Your task to perform on an android device: Go to Reddit.com Image 0: 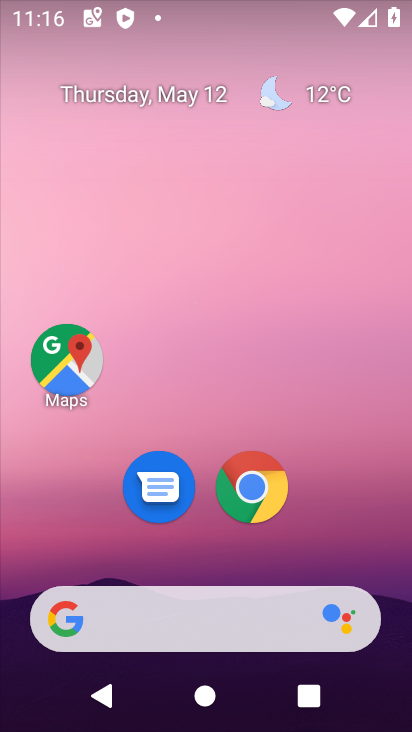
Step 0: click (261, 489)
Your task to perform on an android device: Go to Reddit.com Image 1: 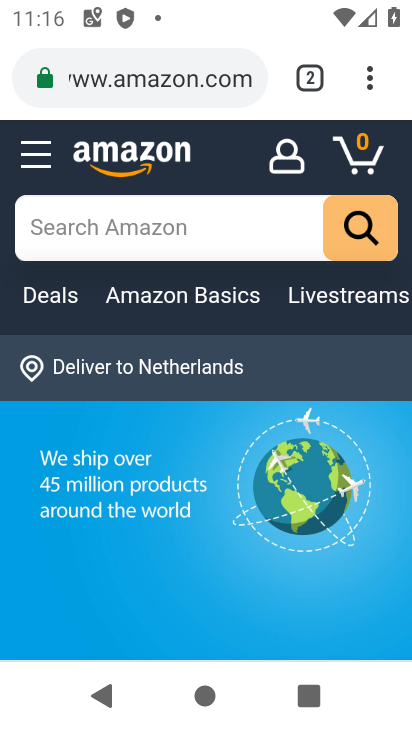
Step 1: click (130, 83)
Your task to perform on an android device: Go to Reddit.com Image 2: 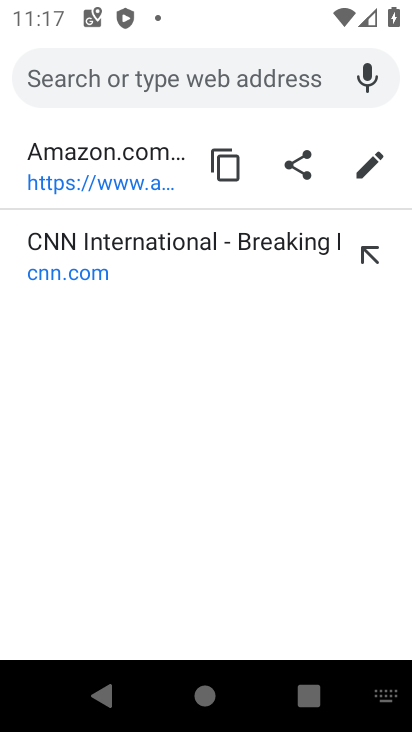
Step 2: type "reddit.com"
Your task to perform on an android device: Go to Reddit.com Image 3: 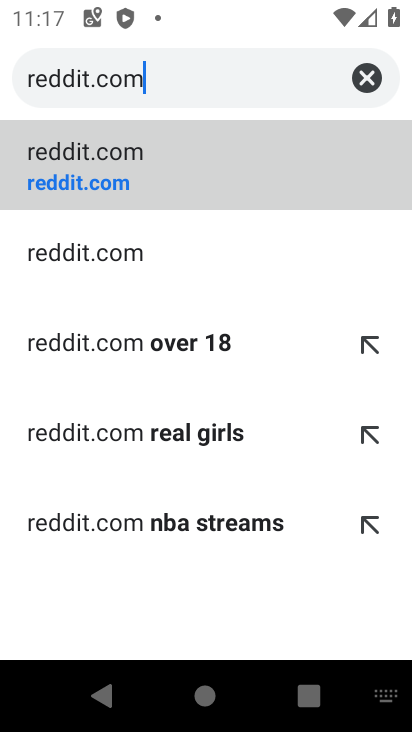
Step 3: click (84, 188)
Your task to perform on an android device: Go to Reddit.com Image 4: 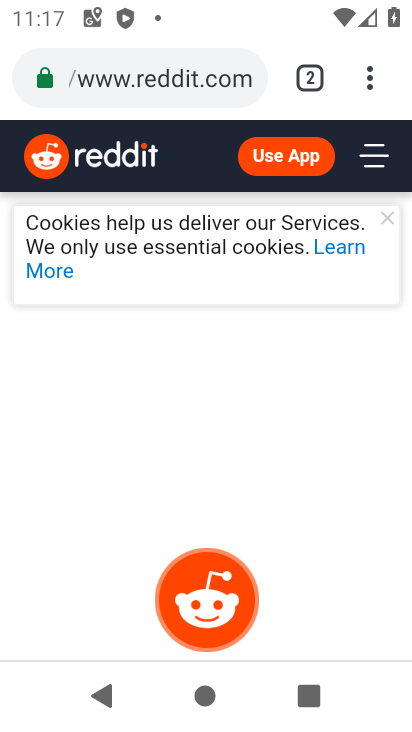
Step 4: task complete